Your task to perform on an android device: Go to Maps Image 0: 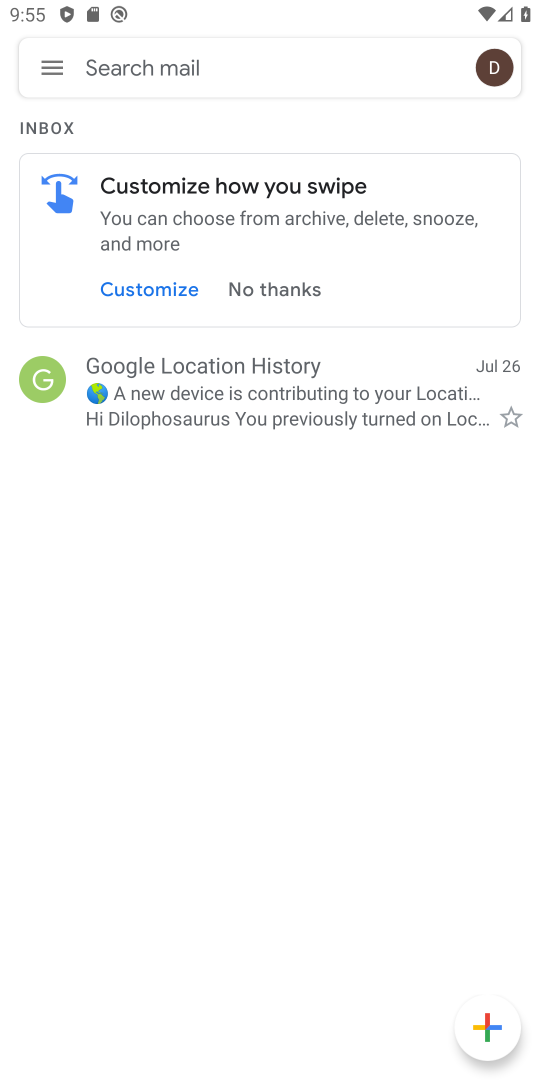
Step 0: press home button
Your task to perform on an android device: Go to Maps Image 1: 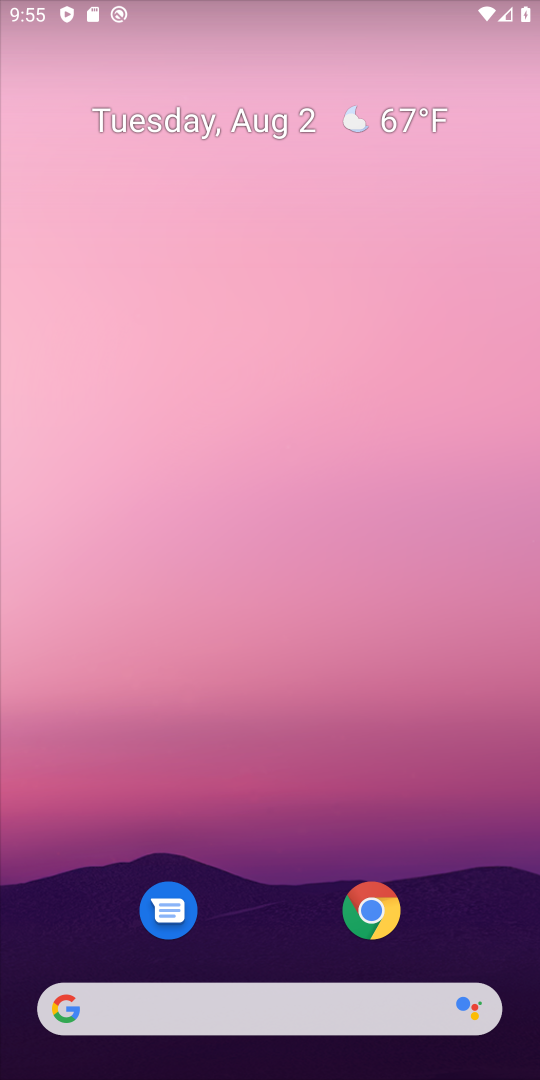
Step 1: drag from (232, 905) to (279, 332)
Your task to perform on an android device: Go to Maps Image 2: 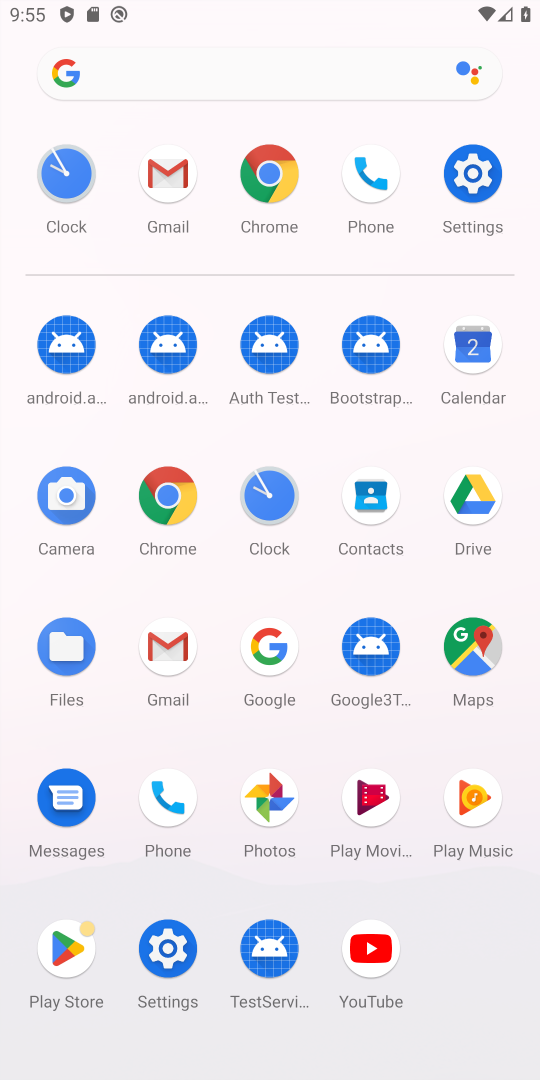
Step 2: click (460, 654)
Your task to perform on an android device: Go to Maps Image 3: 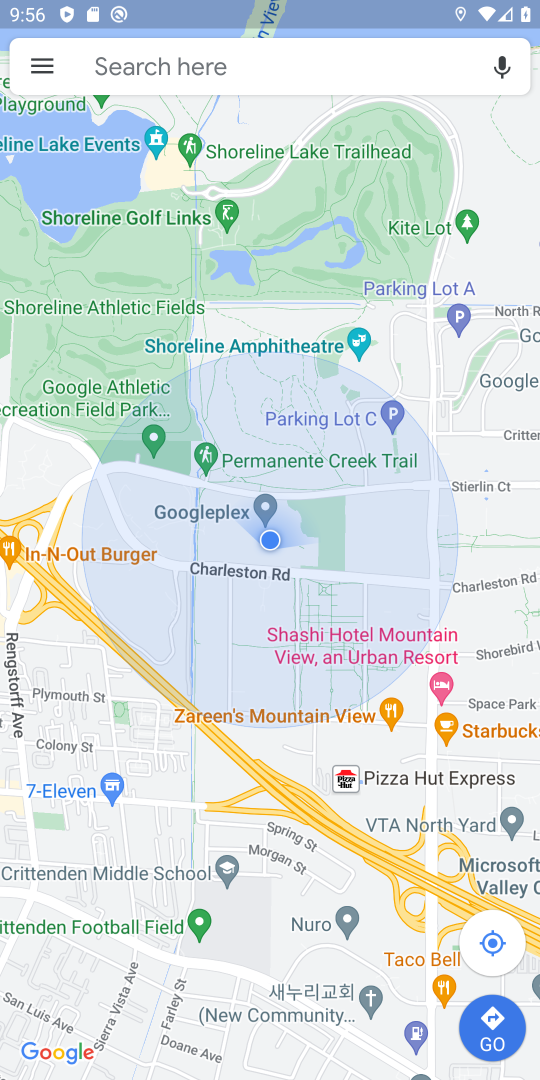
Step 3: task complete